Your task to perform on an android device: set an alarm Image 0: 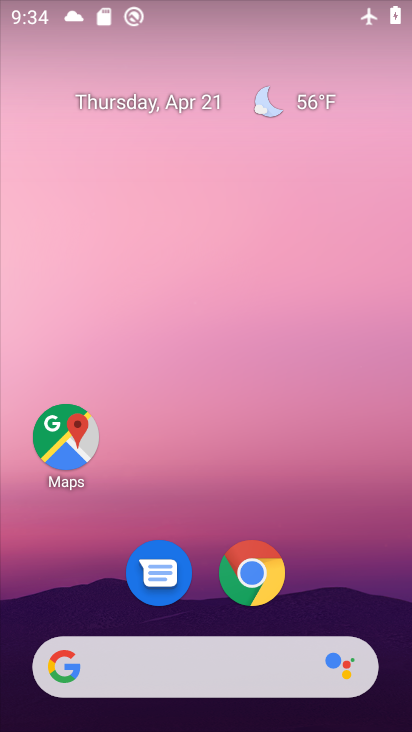
Step 0: drag from (222, 496) to (230, 43)
Your task to perform on an android device: set an alarm Image 1: 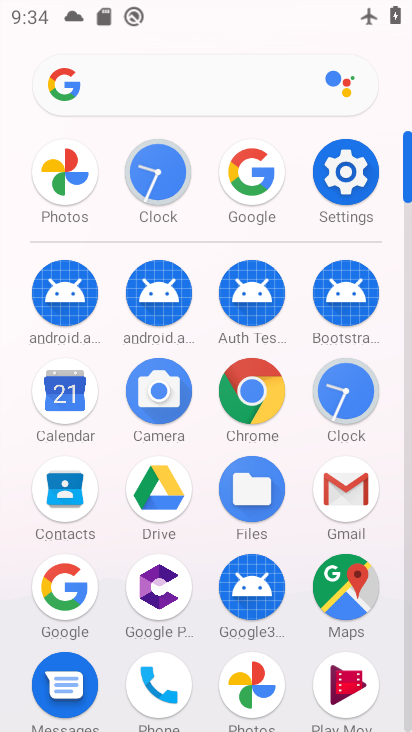
Step 1: click (158, 173)
Your task to perform on an android device: set an alarm Image 2: 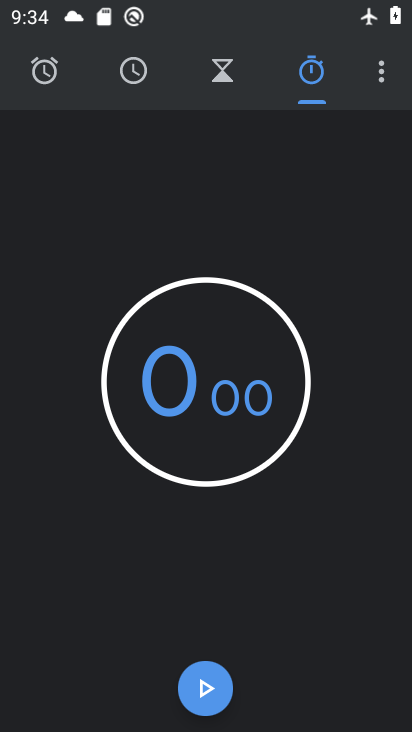
Step 2: click (48, 70)
Your task to perform on an android device: set an alarm Image 3: 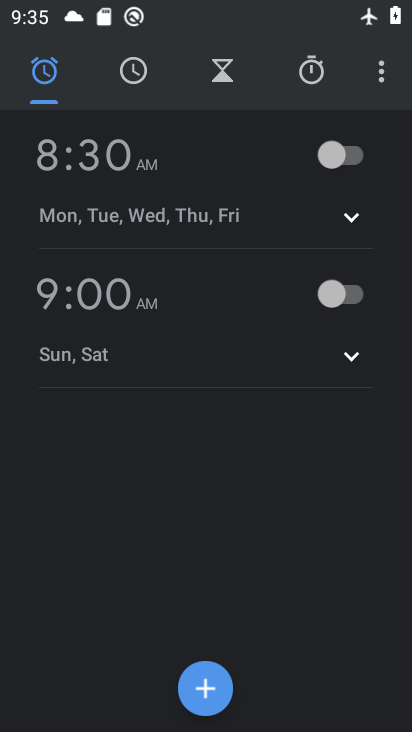
Step 3: click (207, 689)
Your task to perform on an android device: set an alarm Image 4: 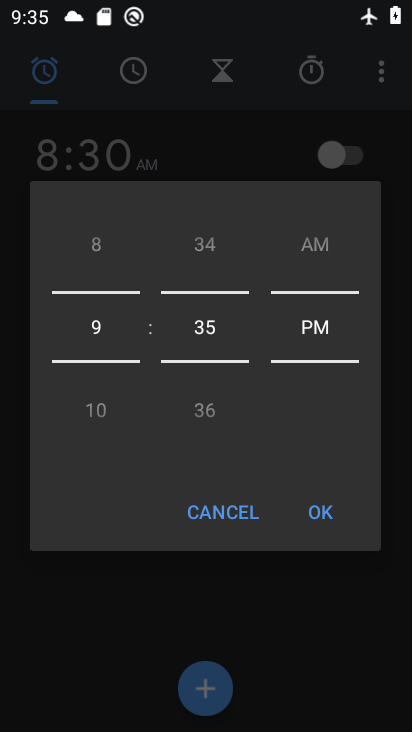
Step 4: drag from (110, 239) to (122, 370)
Your task to perform on an android device: set an alarm Image 5: 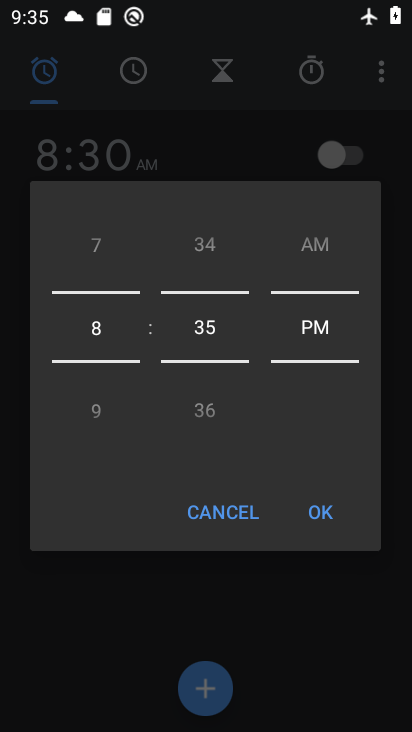
Step 5: drag from (100, 270) to (126, 372)
Your task to perform on an android device: set an alarm Image 6: 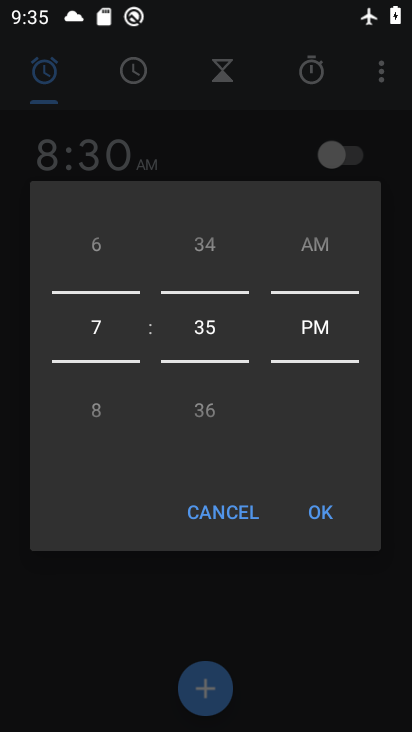
Step 6: drag from (100, 252) to (109, 377)
Your task to perform on an android device: set an alarm Image 7: 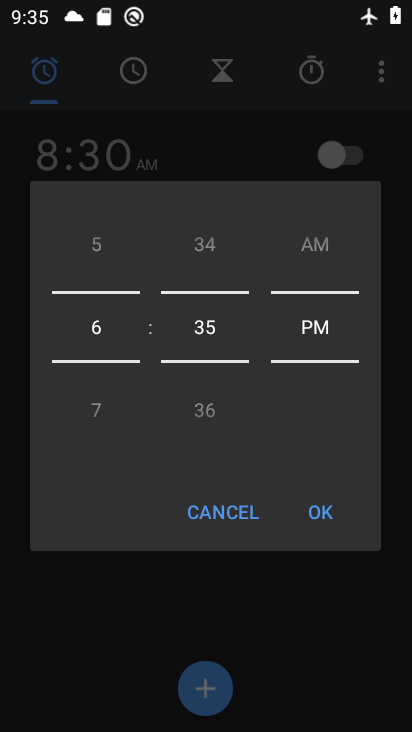
Step 7: drag from (93, 243) to (119, 453)
Your task to perform on an android device: set an alarm Image 8: 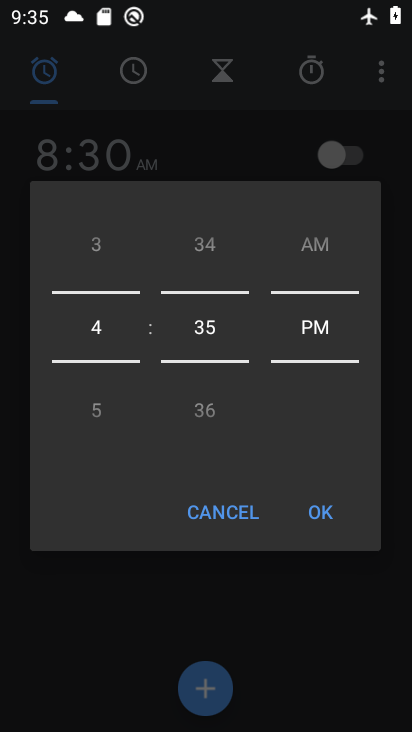
Step 8: drag from (208, 245) to (211, 404)
Your task to perform on an android device: set an alarm Image 9: 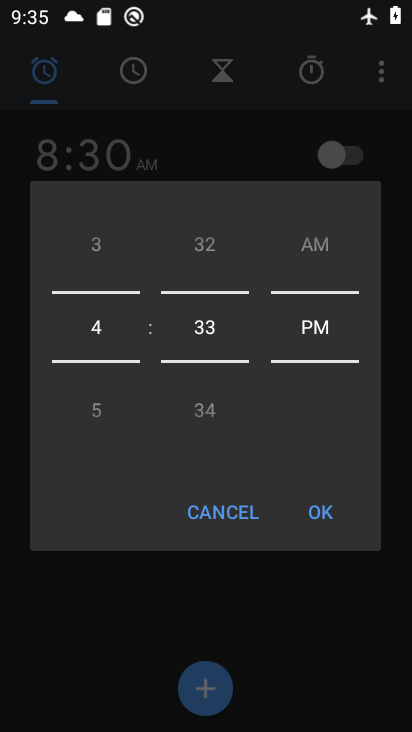
Step 9: drag from (219, 261) to (209, 418)
Your task to perform on an android device: set an alarm Image 10: 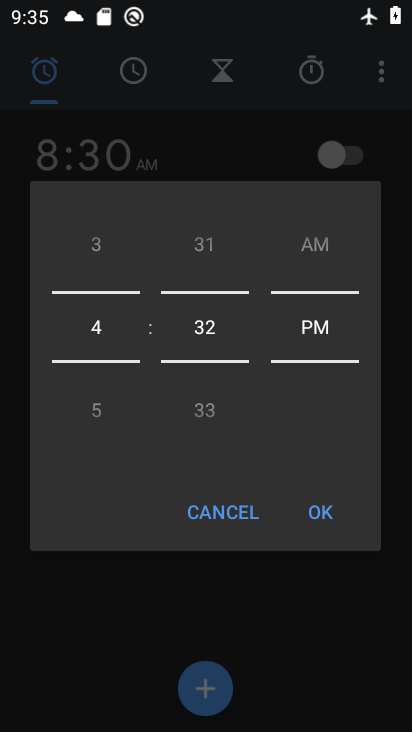
Step 10: drag from (209, 258) to (242, 433)
Your task to perform on an android device: set an alarm Image 11: 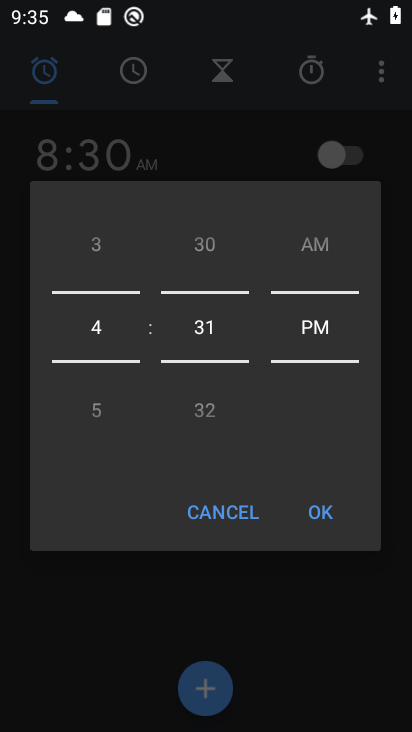
Step 11: drag from (218, 273) to (252, 421)
Your task to perform on an android device: set an alarm Image 12: 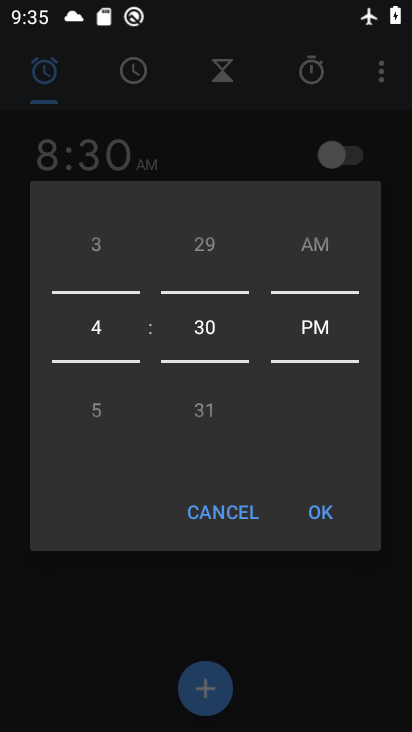
Step 12: drag from (208, 249) to (244, 417)
Your task to perform on an android device: set an alarm Image 13: 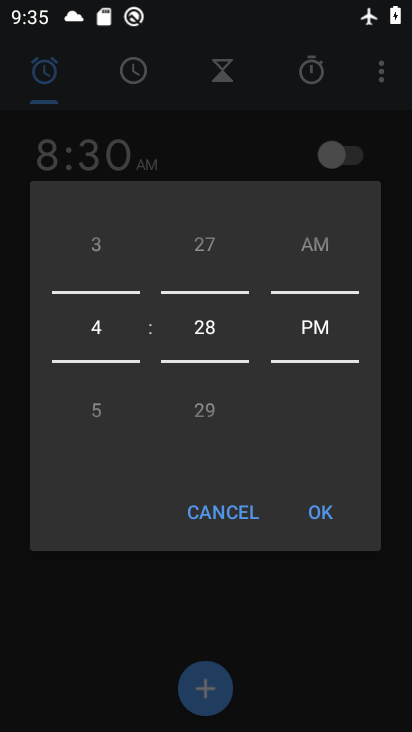
Step 13: drag from (315, 264) to (337, 371)
Your task to perform on an android device: set an alarm Image 14: 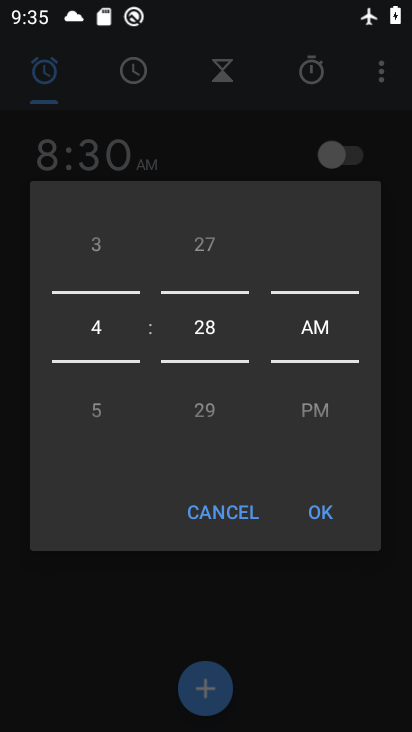
Step 14: click (318, 510)
Your task to perform on an android device: set an alarm Image 15: 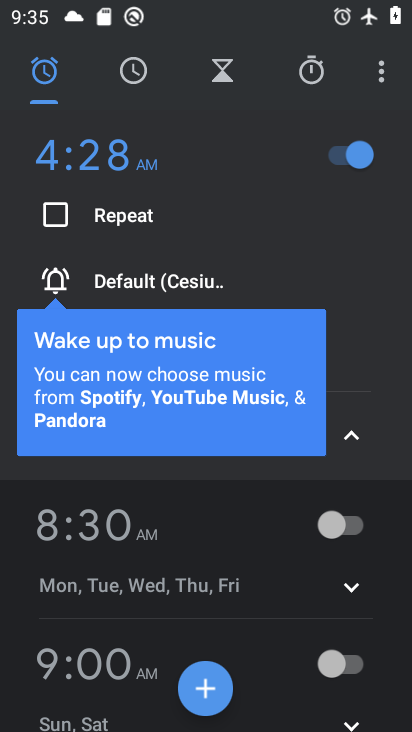
Step 15: click (151, 128)
Your task to perform on an android device: set an alarm Image 16: 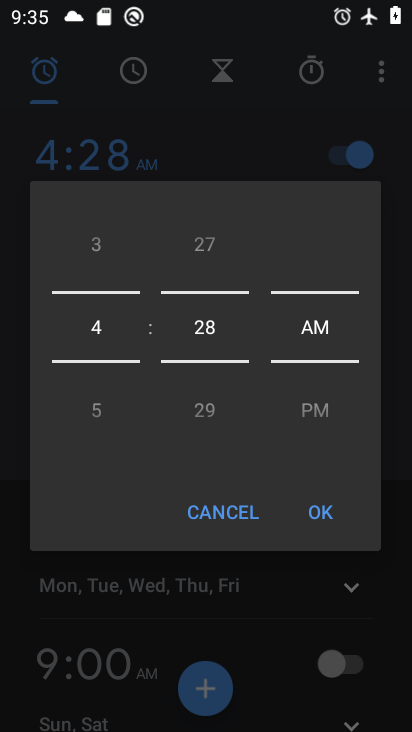
Step 16: click (313, 512)
Your task to perform on an android device: set an alarm Image 17: 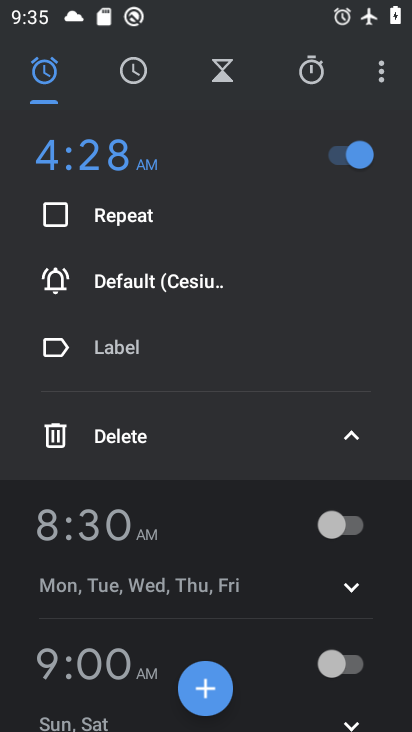
Step 17: click (350, 438)
Your task to perform on an android device: set an alarm Image 18: 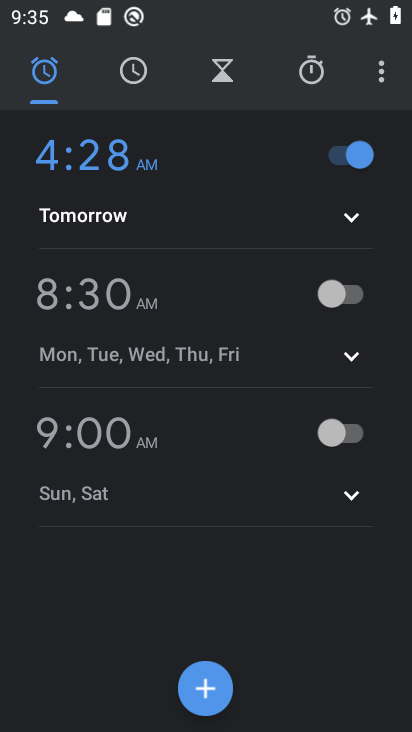
Step 18: task complete